Your task to perform on an android device: Open Google Maps Image 0: 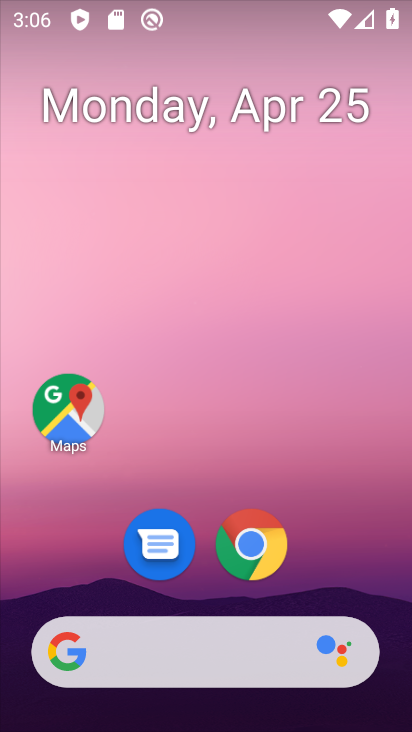
Step 0: click (69, 414)
Your task to perform on an android device: Open Google Maps Image 1: 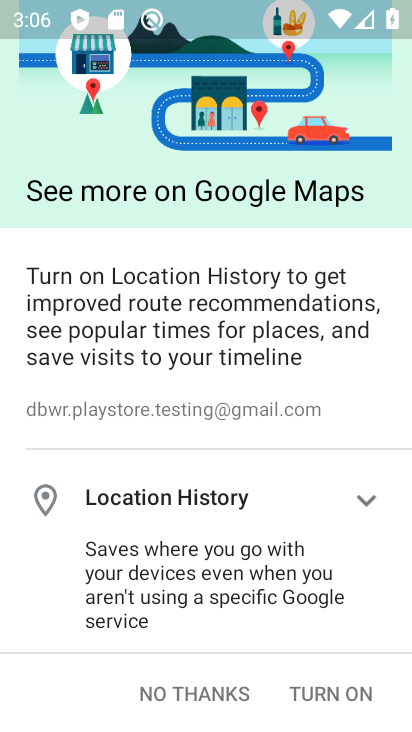
Step 1: click (233, 699)
Your task to perform on an android device: Open Google Maps Image 2: 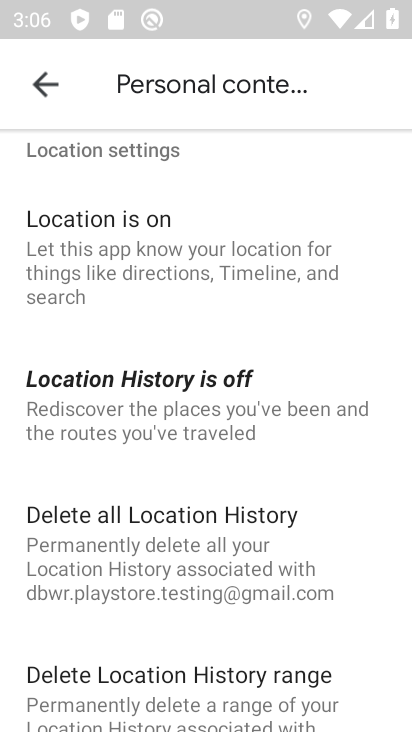
Step 2: press back button
Your task to perform on an android device: Open Google Maps Image 3: 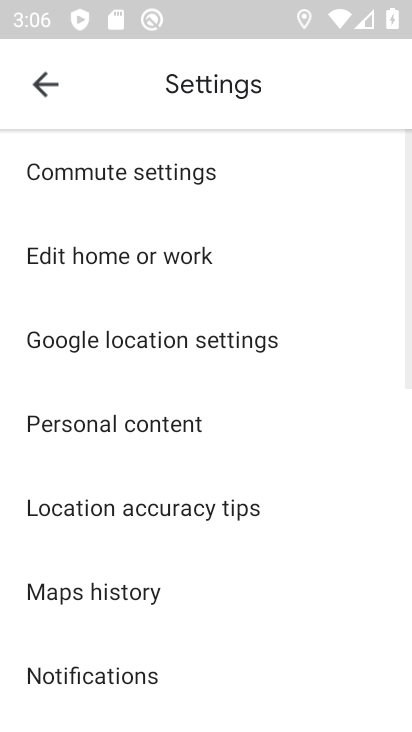
Step 3: press back button
Your task to perform on an android device: Open Google Maps Image 4: 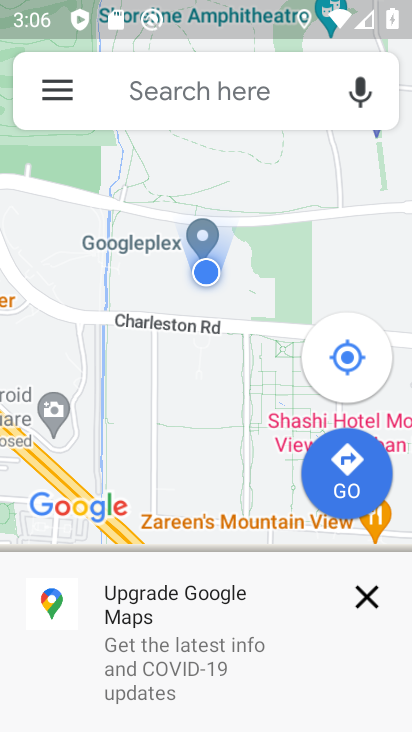
Step 4: click (370, 595)
Your task to perform on an android device: Open Google Maps Image 5: 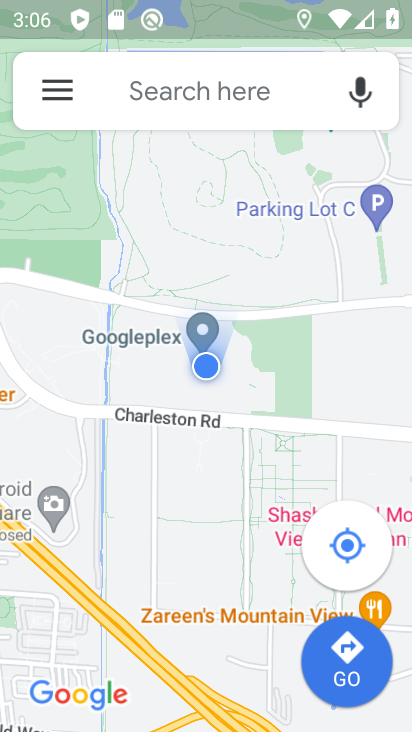
Step 5: task complete